Your task to perform on an android device: Go to Android settings Image 0: 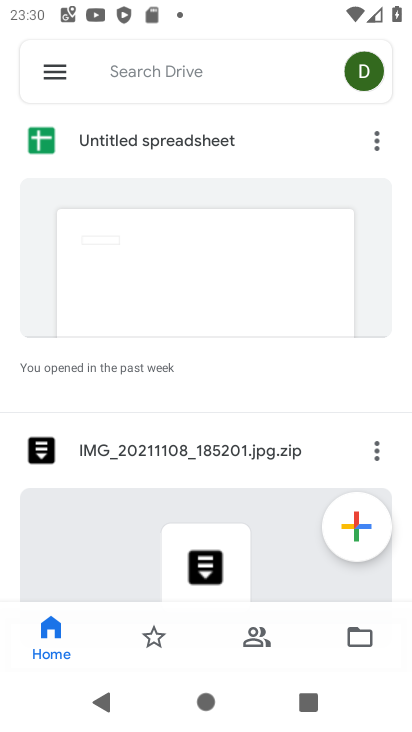
Step 0: press home button
Your task to perform on an android device: Go to Android settings Image 1: 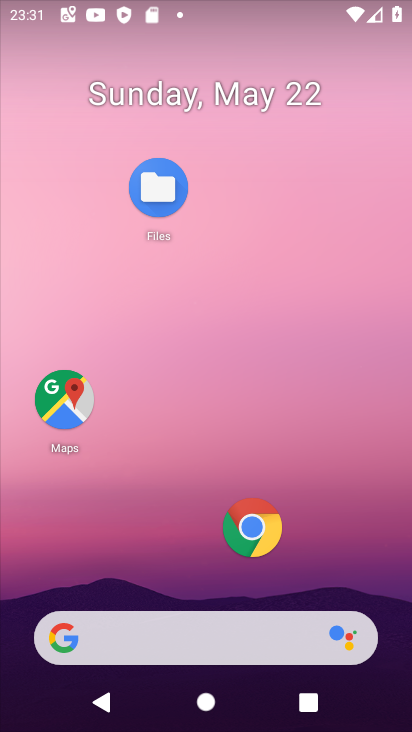
Step 1: drag from (177, 533) to (208, 2)
Your task to perform on an android device: Go to Android settings Image 2: 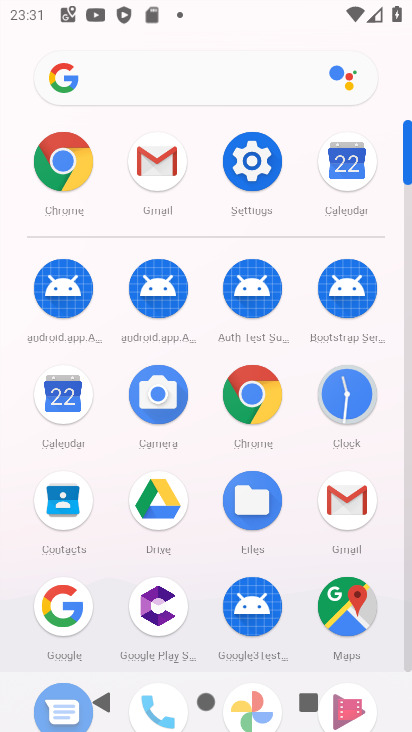
Step 2: click (256, 157)
Your task to perform on an android device: Go to Android settings Image 3: 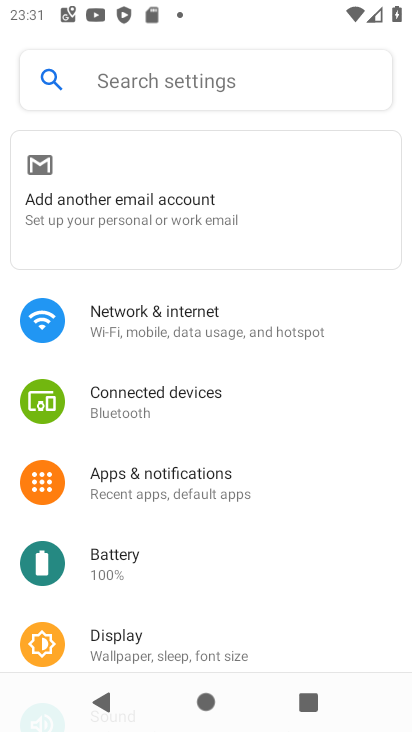
Step 3: task complete